Your task to perform on an android device: Search for panasonic triple a on ebay, select the first entry, add it to the cart, then select checkout. Image 0: 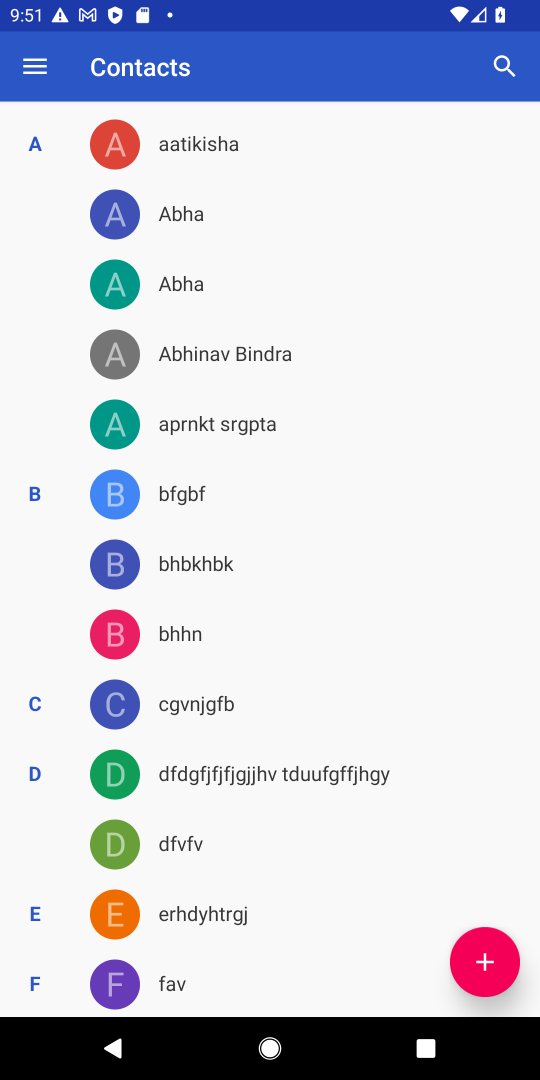
Step 0: press home button
Your task to perform on an android device: Search for panasonic triple a on ebay, select the first entry, add it to the cart, then select checkout. Image 1: 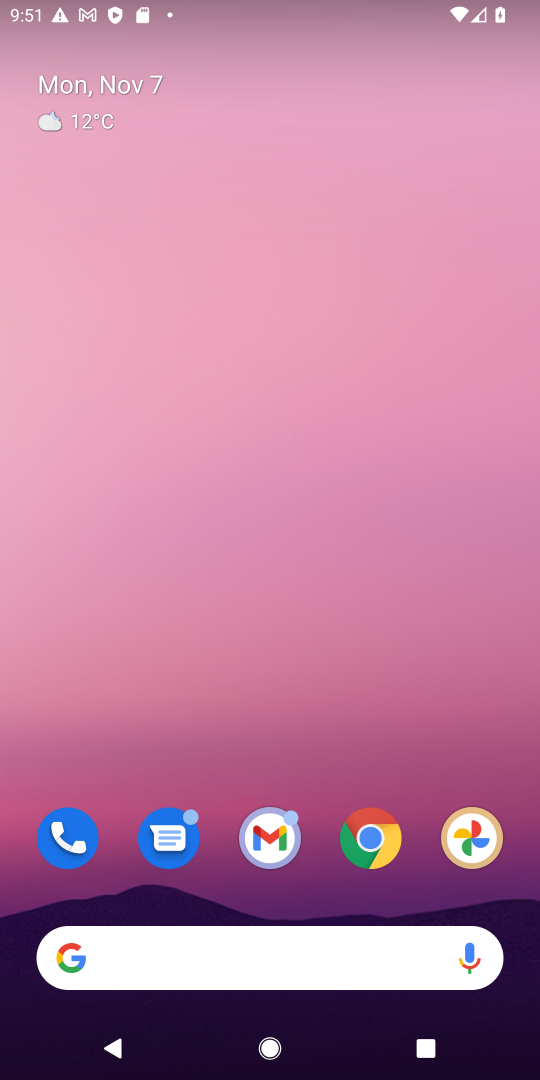
Step 1: click (162, 953)
Your task to perform on an android device: Search for panasonic triple a on ebay, select the first entry, add it to the cart, then select checkout. Image 2: 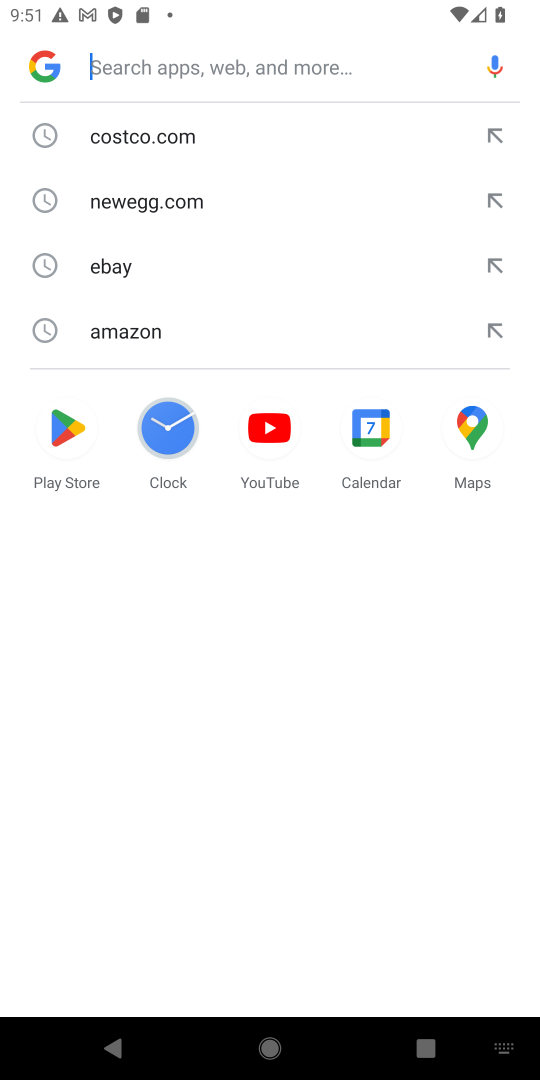
Step 2: click (112, 255)
Your task to perform on an android device: Search for panasonic triple a on ebay, select the first entry, add it to the cart, then select checkout. Image 3: 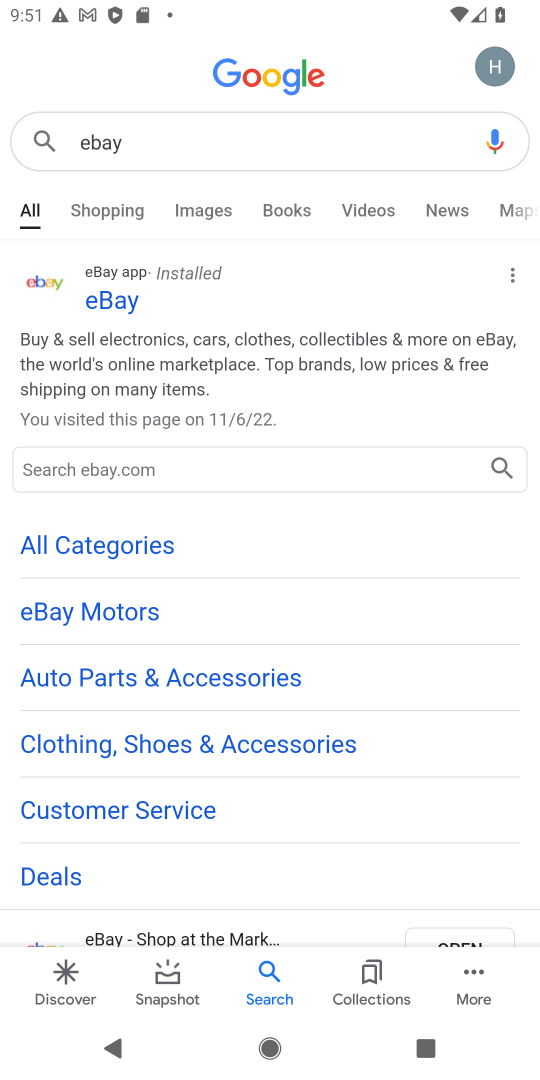
Step 3: click (104, 463)
Your task to perform on an android device: Search for panasonic triple a on ebay, select the first entry, add it to the cart, then select checkout. Image 4: 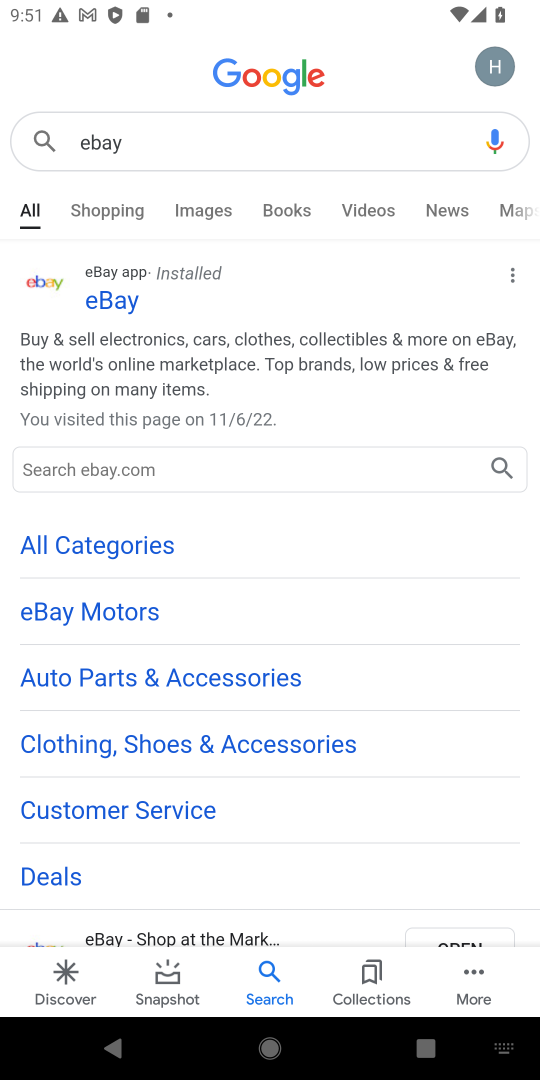
Step 4: type "panasonic triple a battery"
Your task to perform on an android device: Search for panasonic triple a on ebay, select the first entry, add it to the cart, then select checkout. Image 5: 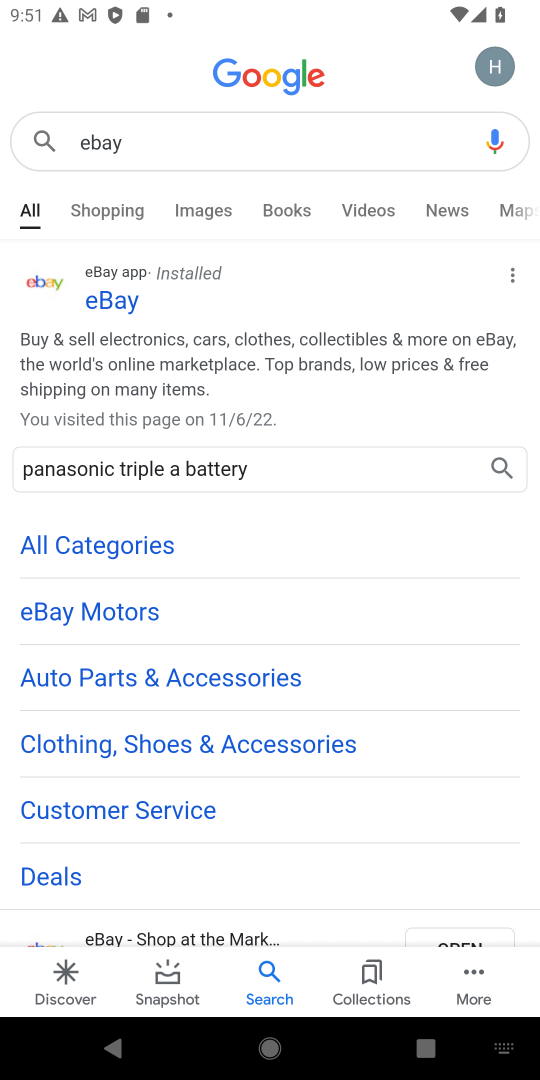
Step 5: click (496, 469)
Your task to perform on an android device: Search for panasonic triple a on ebay, select the first entry, add it to the cart, then select checkout. Image 6: 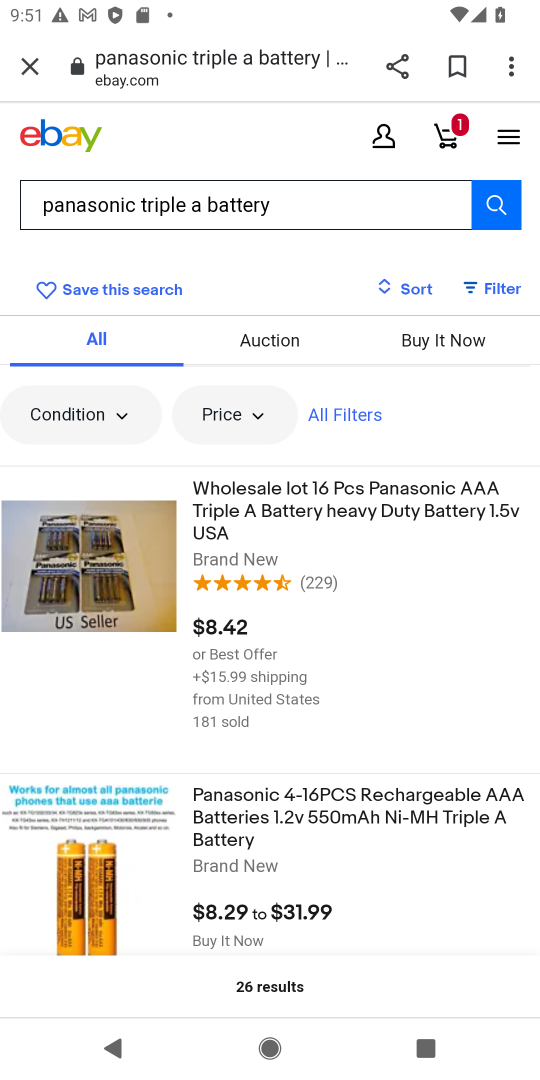
Step 6: click (310, 809)
Your task to perform on an android device: Search for panasonic triple a on ebay, select the first entry, add it to the cart, then select checkout. Image 7: 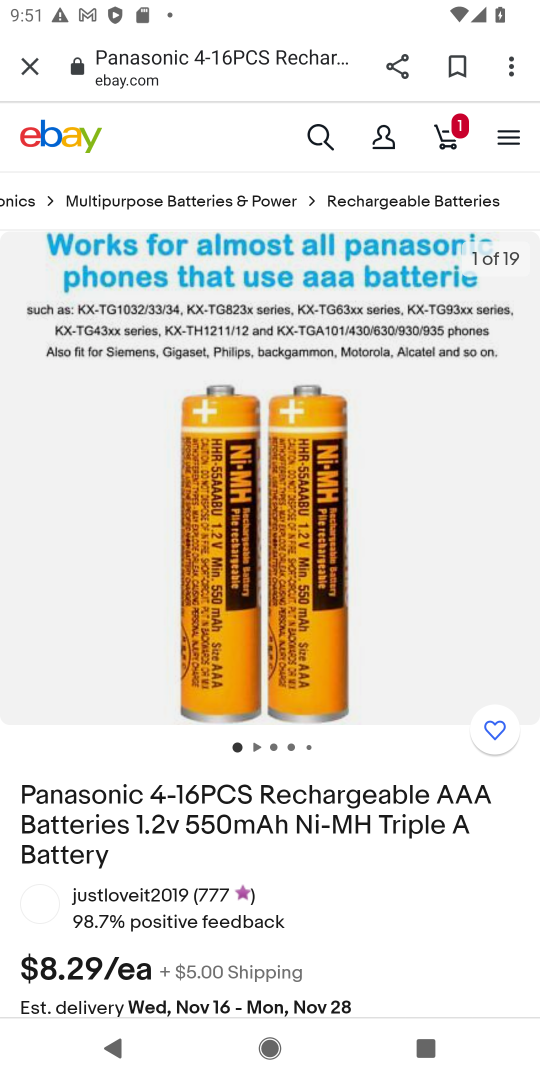
Step 7: drag from (313, 929) to (270, 360)
Your task to perform on an android device: Search for panasonic triple a on ebay, select the first entry, add it to the cart, then select checkout. Image 8: 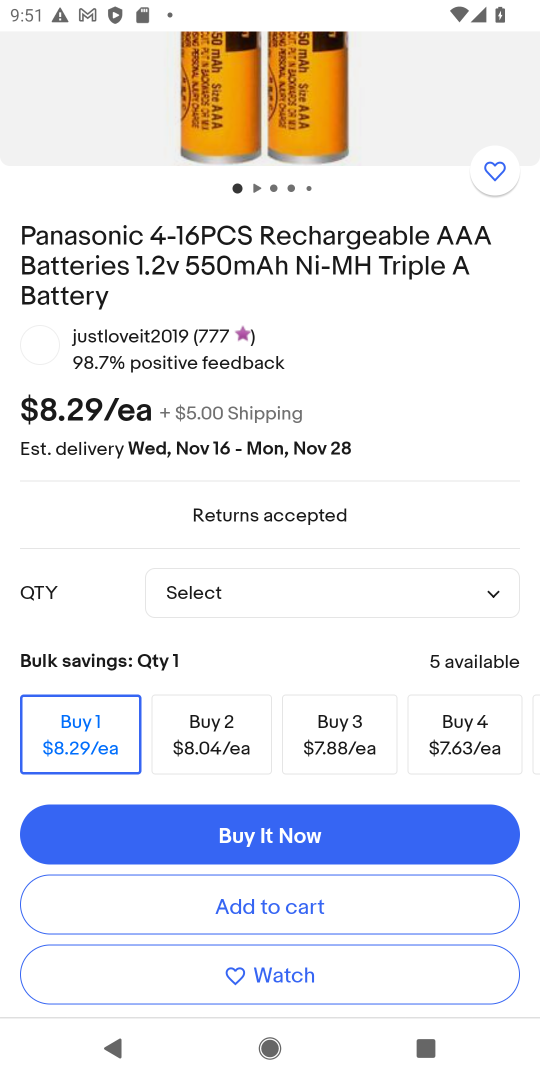
Step 8: click (272, 910)
Your task to perform on an android device: Search for panasonic triple a on ebay, select the first entry, add it to the cart, then select checkout. Image 9: 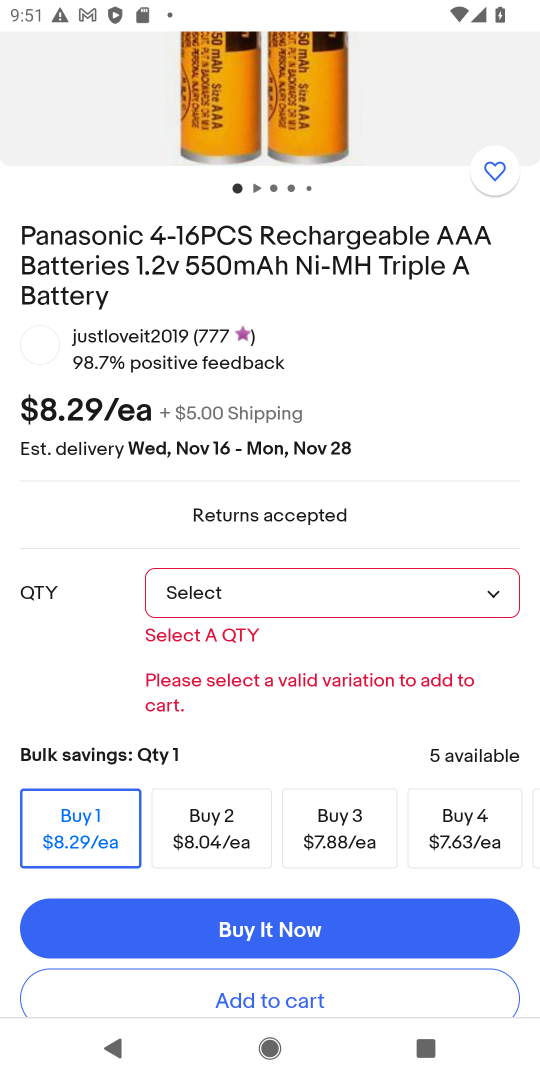
Step 9: click (488, 595)
Your task to perform on an android device: Search for panasonic triple a on ebay, select the first entry, add it to the cart, then select checkout. Image 10: 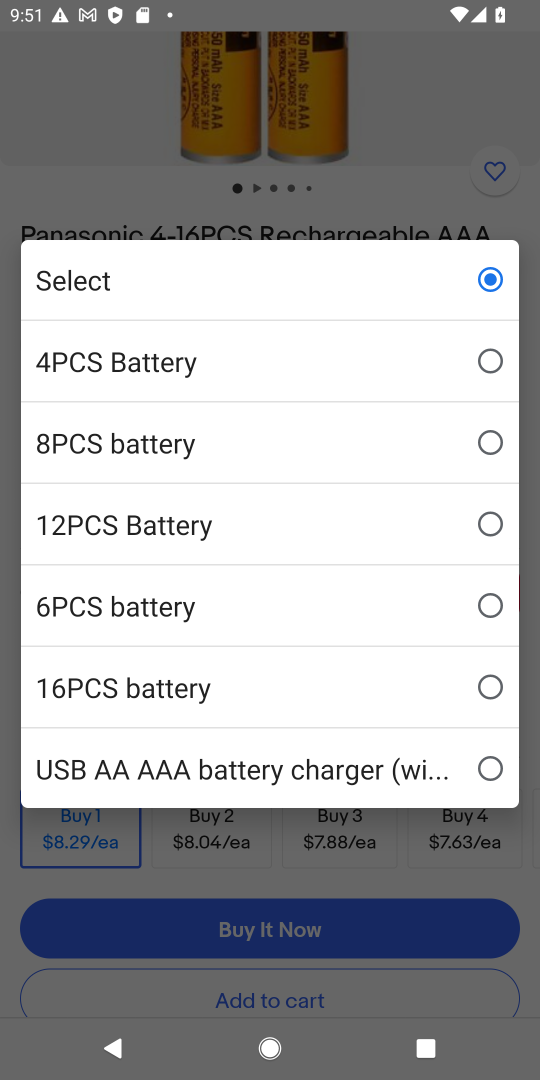
Step 10: click (491, 598)
Your task to perform on an android device: Search for panasonic triple a on ebay, select the first entry, add it to the cart, then select checkout. Image 11: 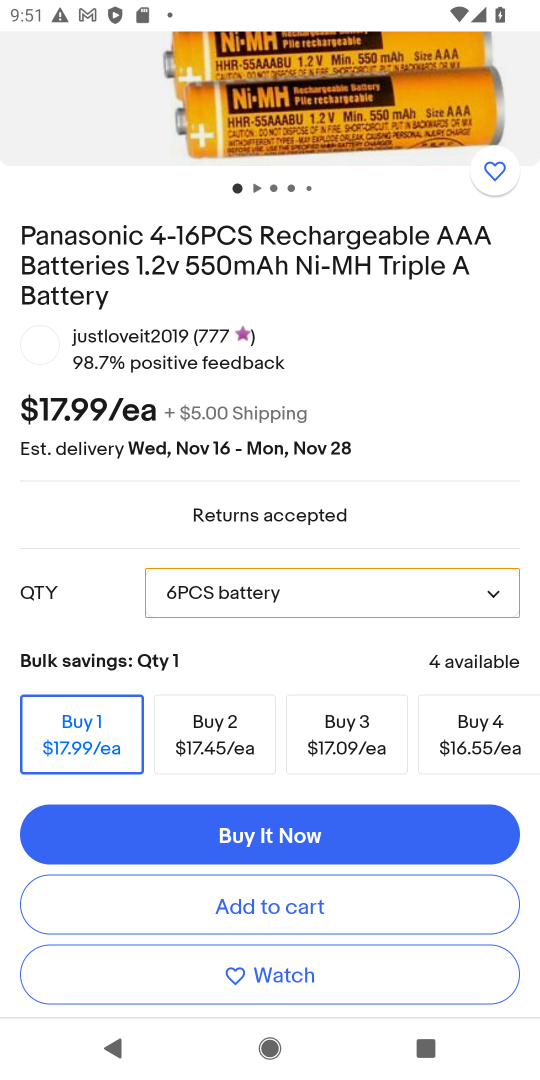
Step 11: click (283, 914)
Your task to perform on an android device: Search for panasonic triple a on ebay, select the first entry, add it to the cart, then select checkout. Image 12: 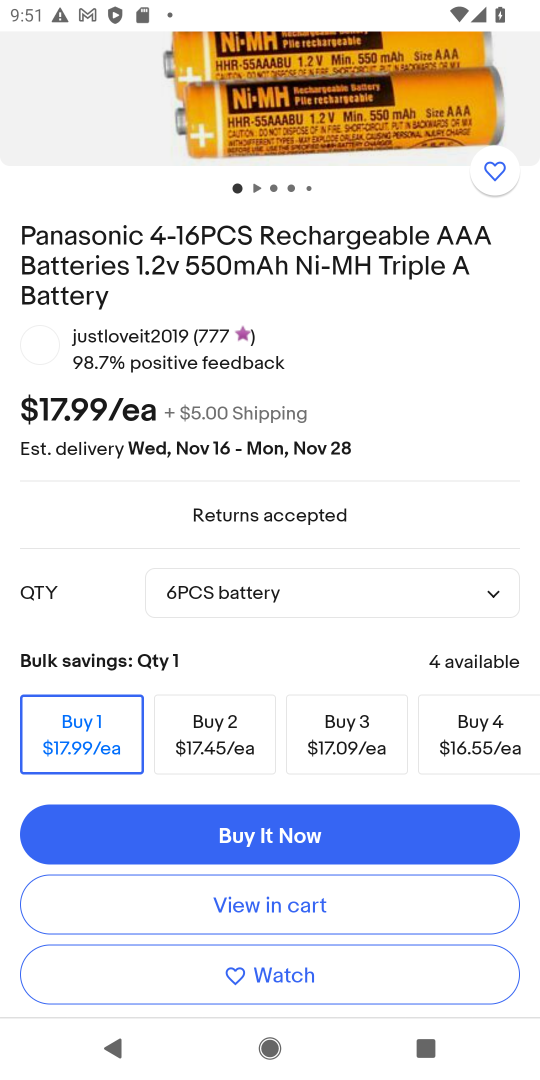
Step 12: click (291, 915)
Your task to perform on an android device: Search for panasonic triple a on ebay, select the first entry, add it to the cart, then select checkout. Image 13: 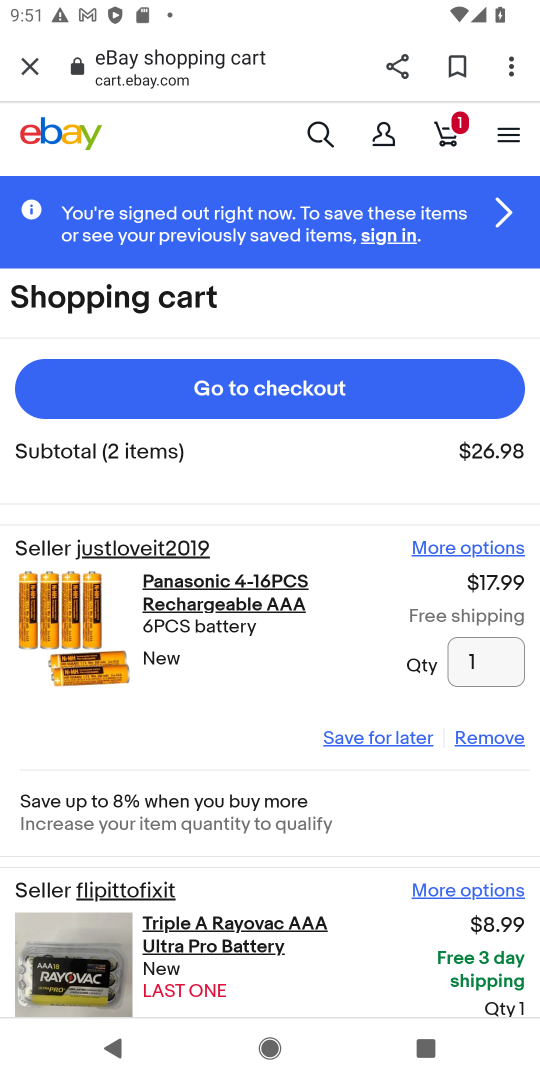
Step 13: click (238, 383)
Your task to perform on an android device: Search for panasonic triple a on ebay, select the first entry, add it to the cart, then select checkout. Image 14: 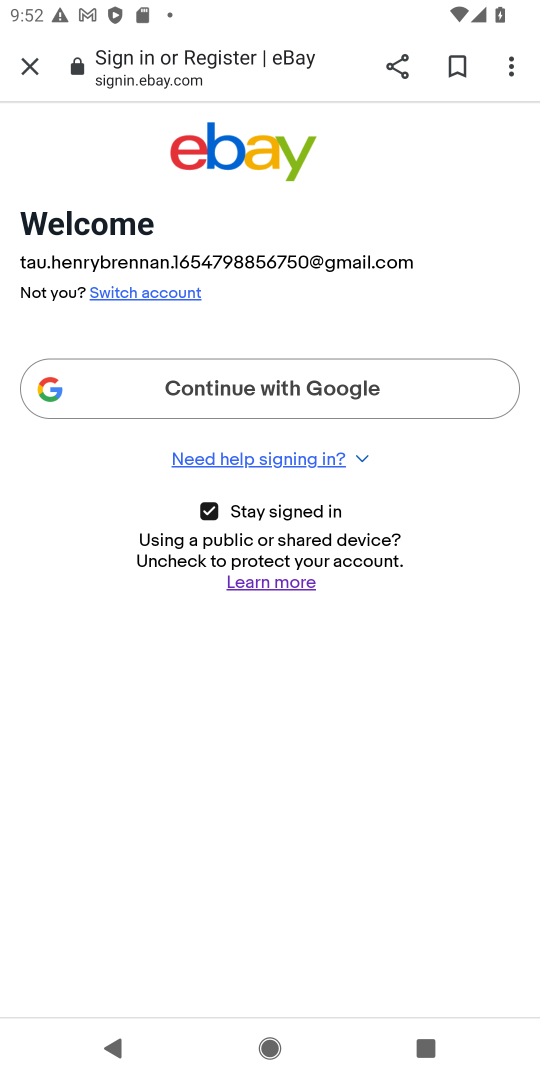
Step 14: task complete